Your task to perform on an android device: Open settings on Google Maps Image 0: 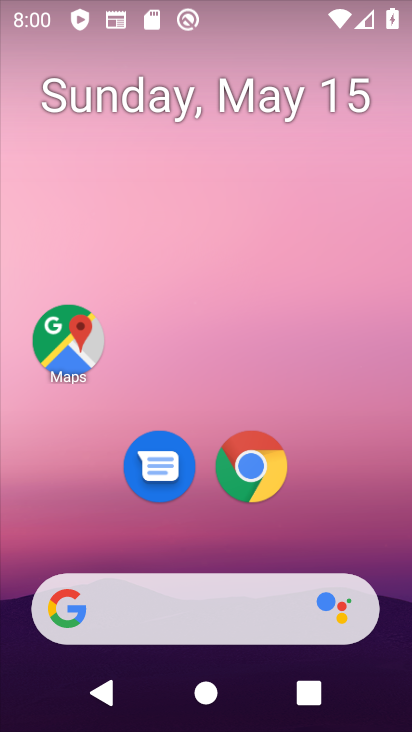
Step 0: drag from (206, 553) to (362, 19)
Your task to perform on an android device: Open settings on Google Maps Image 1: 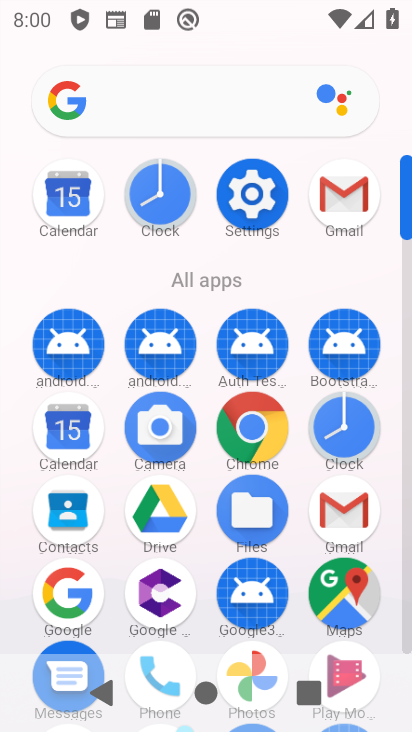
Step 1: drag from (203, 553) to (197, 88)
Your task to perform on an android device: Open settings on Google Maps Image 2: 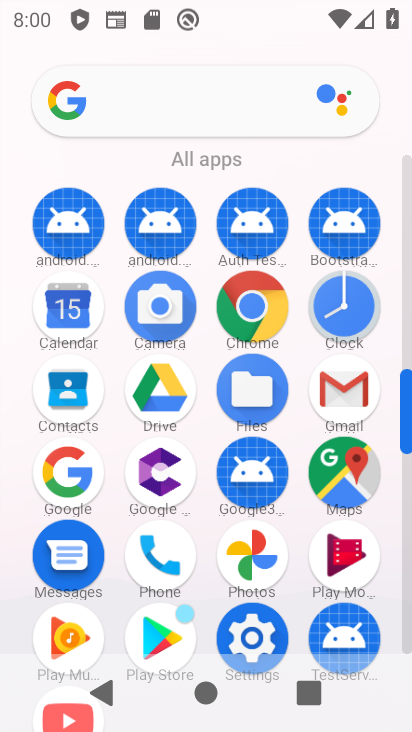
Step 2: click (337, 468)
Your task to perform on an android device: Open settings on Google Maps Image 3: 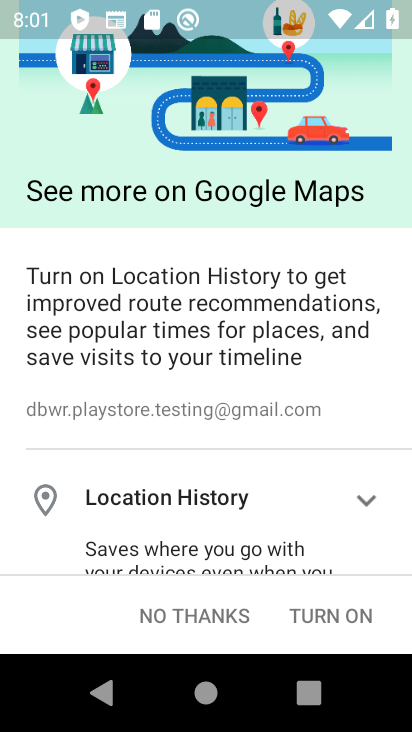
Step 3: click (336, 614)
Your task to perform on an android device: Open settings on Google Maps Image 4: 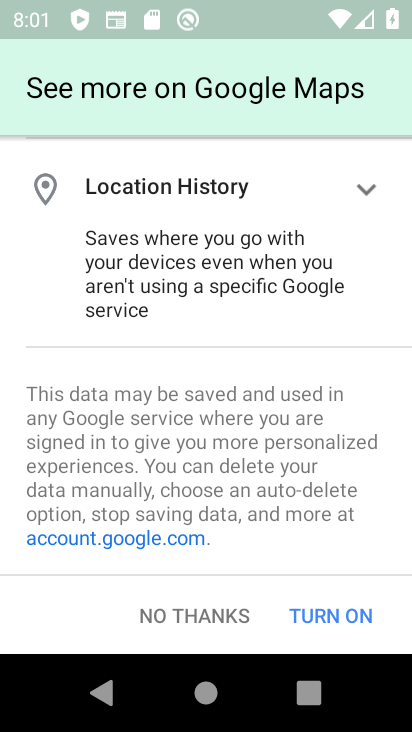
Step 4: click (348, 637)
Your task to perform on an android device: Open settings on Google Maps Image 5: 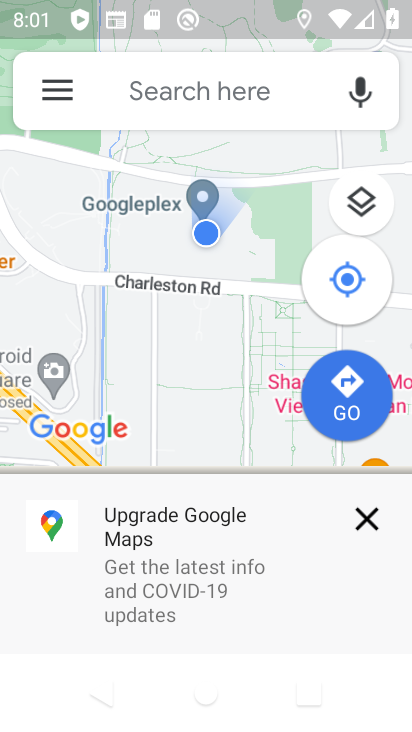
Step 5: click (60, 105)
Your task to perform on an android device: Open settings on Google Maps Image 6: 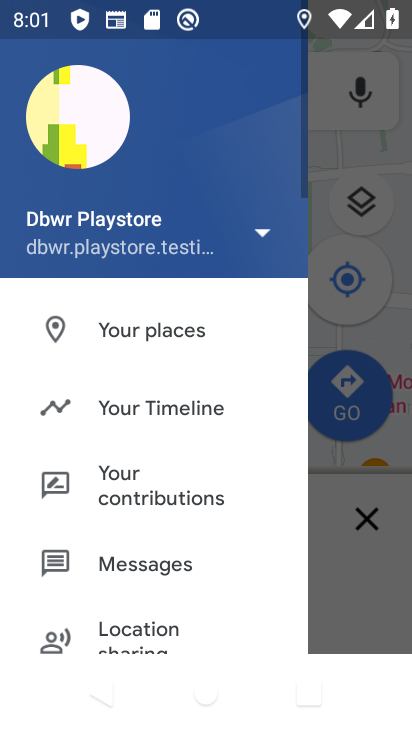
Step 6: drag from (106, 540) to (120, 1)
Your task to perform on an android device: Open settings on Google Maps Image 7: 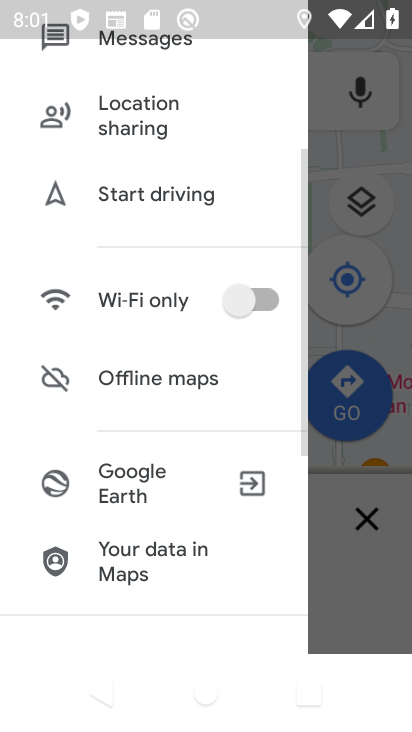
Step 7: drag from (196, 556) to (188, 29)
Your task to perform on an android device: Open settings on Google Maps Image 8: 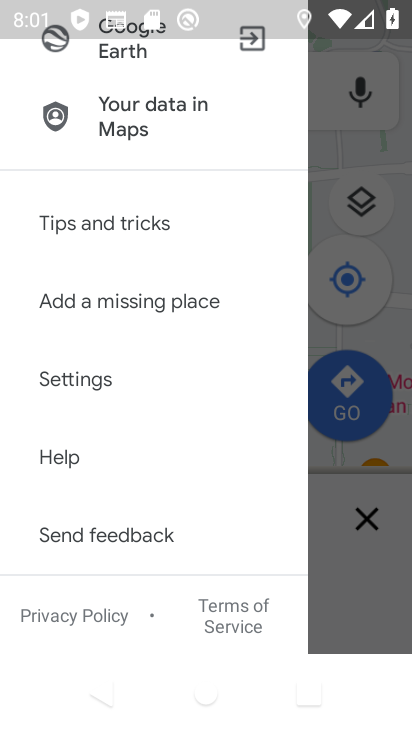
Step 8: click (66, 377)
Your task to perform on an android device: Open settings on Google Maps Image 9: 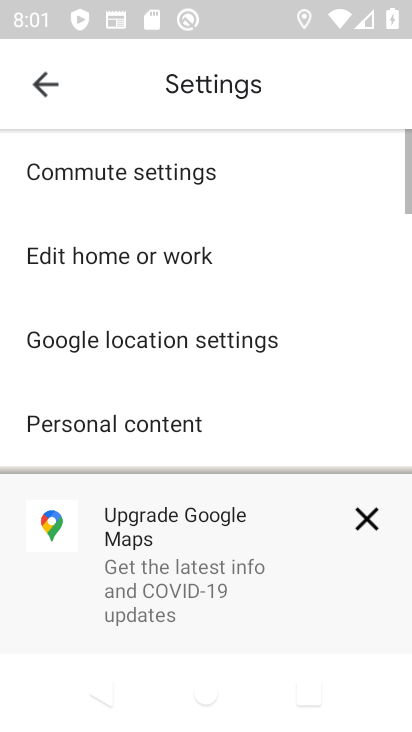
Step 9: task complete